Your task to perform on an android device: turn off notifications in google photos Image 0: 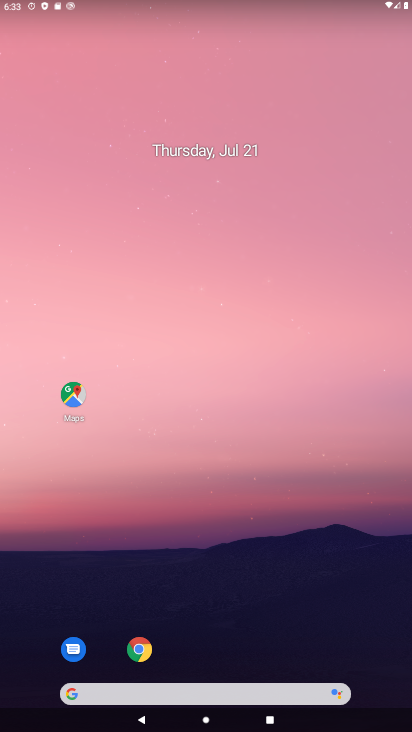
Step 0: drag from (328, 620) to (230, 0)
Your task to perform on an android device: turn off notifications in google photos Image 1: 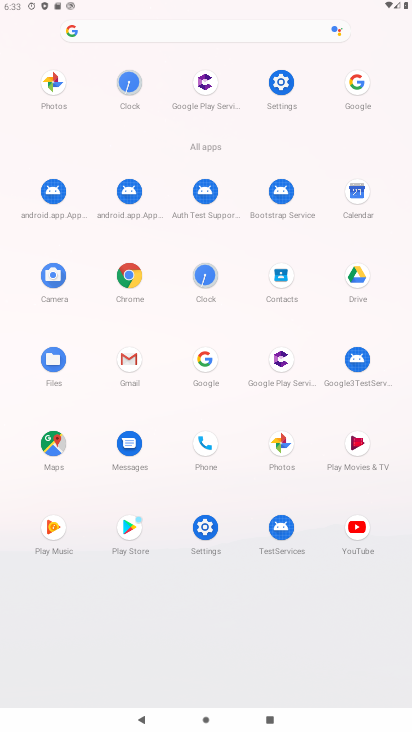
Step 1: click (290, 459)
Your task to perform on an android device: turn off notifications in google photos Image 2: 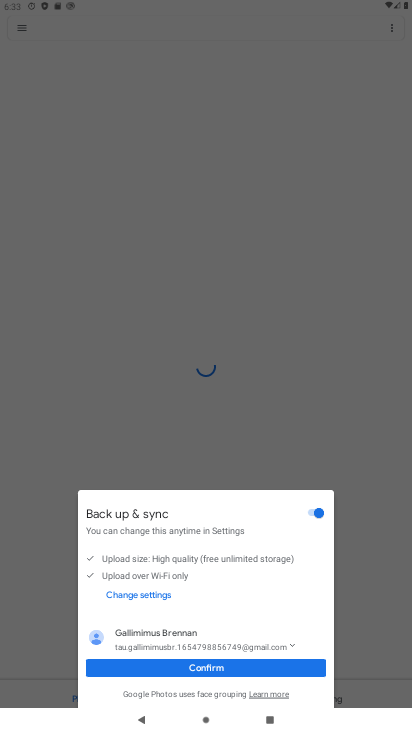
Step 2: click (199, 668)
Your task to perform on an android device: turn off notifications in google photos Image 3: 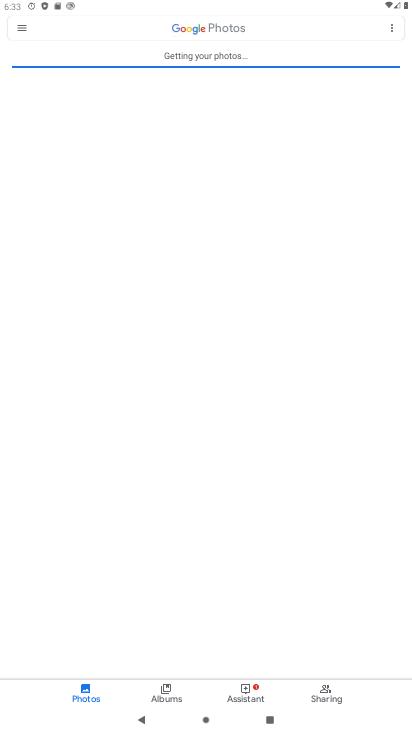
Step 3: click (23, 26)
Your task to perform on an android device: turn off notifications in google photos Image 4: 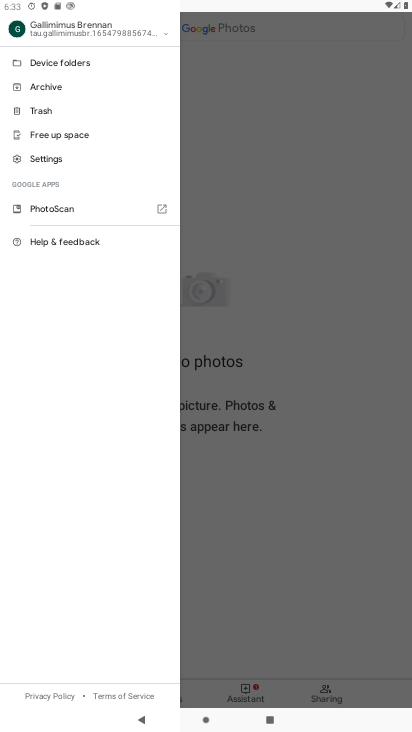
Step 4: click (66, 159)
Your task to perform on an android device: turn off notifications in google photos Image 5: 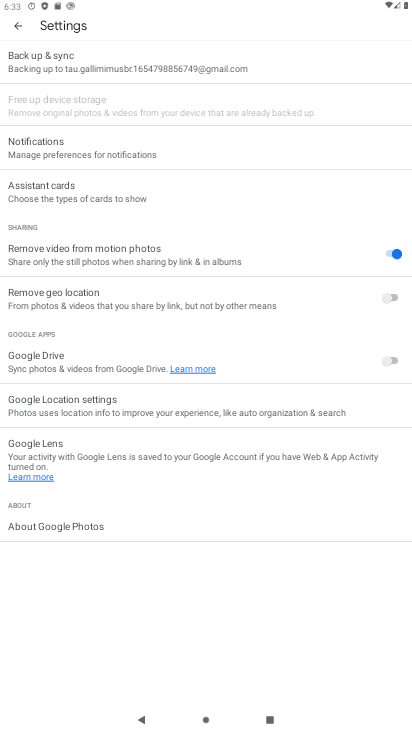
Step 5: click (65, 158)
Your task to perform on an android device: turn off notifications in google photos Image 6: 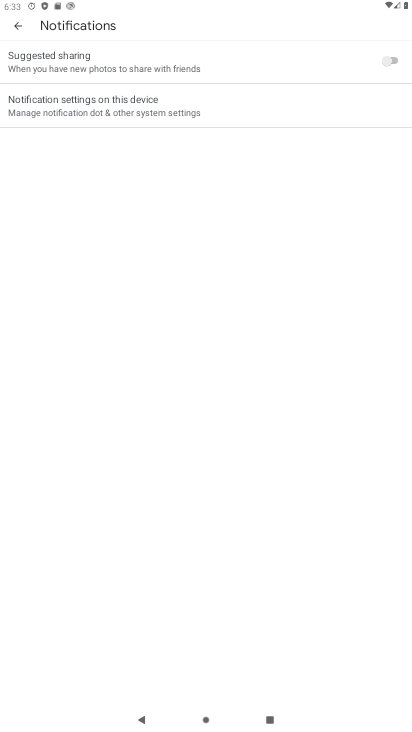
Step 6: task complete